Your task to perform on an android device: set an alarm Image 0: 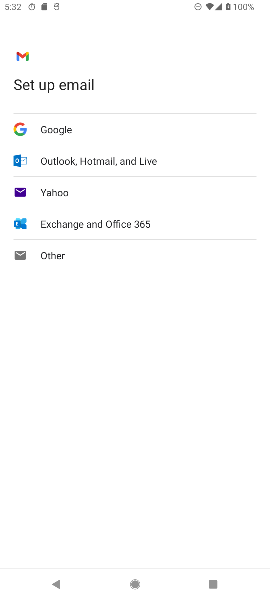
Step 0: press back button
Your task to perform on an android device: set an alarm Image 1: 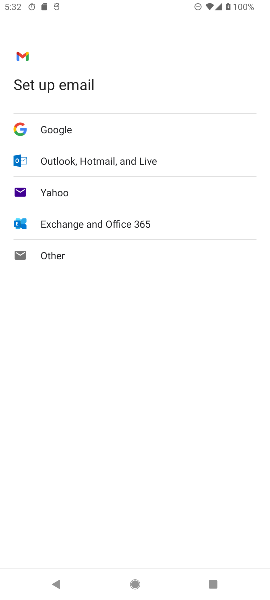
Step 1: press back button
Your task to perform on an android device: set an alarm Image 2: 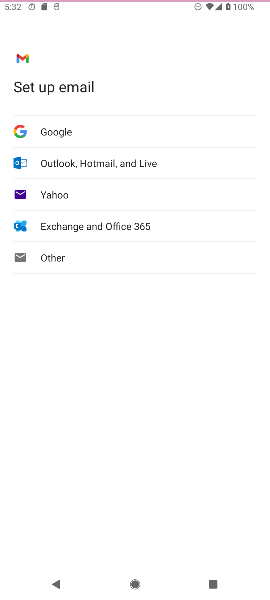
Step 2: press back button
Your task to perform on an android device: set an alarm Image 3: 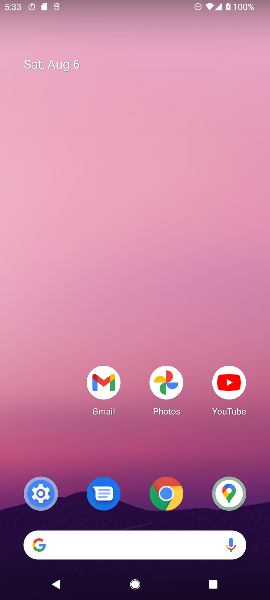
Step 3: drag from (150, 453) to (121, 175)
Your task to perform on an android device: set an alarm Image 4: 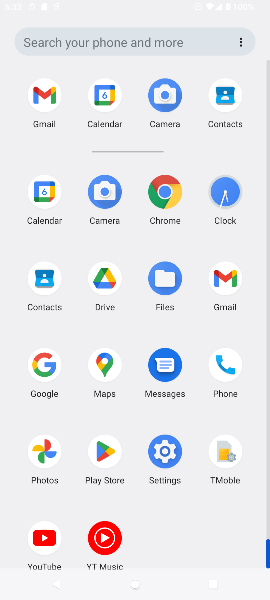
Step 4: drag from (185, 251) to (201, 186)
Your task to perform on an android device: set an alarm Image 5: 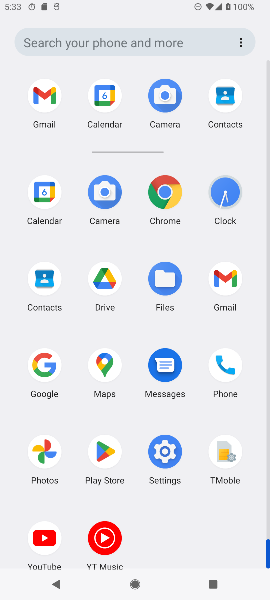
Step 5: click (223, 192)
Your task to perform on an android device: set an alarm Image 6: 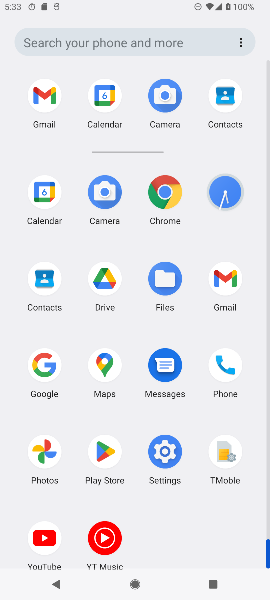
Step 6: click (223, 192)
Your task to perform on an android device: set an alarm Image 7: 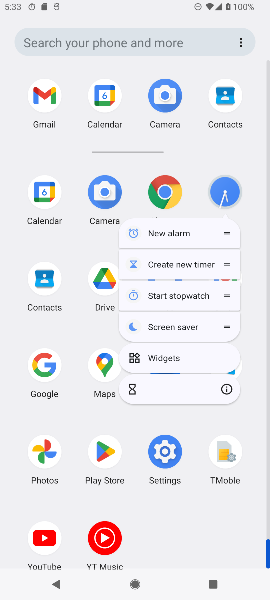
Step 7: click (224, 191)
Your task to perform on an android device: set an alarm Image 8: 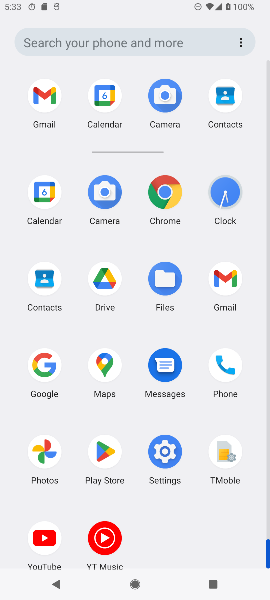
Step 8: click (224, 191)
Your task to perform on an android device: set an alarm Image 9: 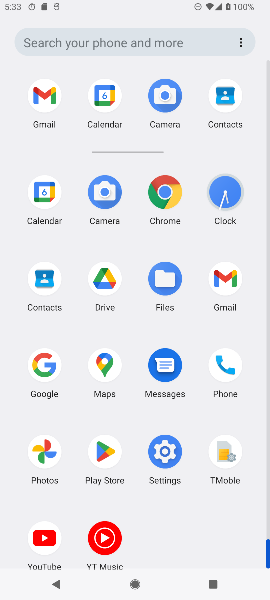
Step 9: click (224, 191)
Your task to perform on an android device: set an alarm Image 10: 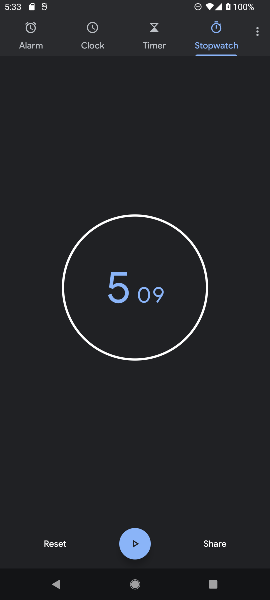
Step 10: click (26, 47)
Your task to perform on an android device: set an alarm Image 11: 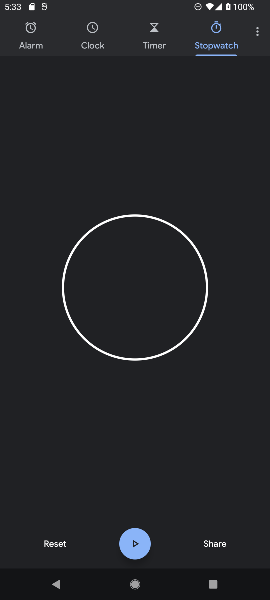
Step 11: click (26, 47)
Your task to perform on an android device: set an alarm Image 12: 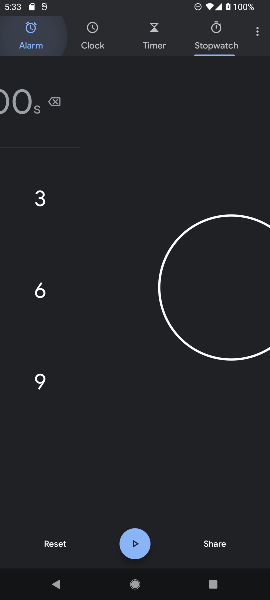
Step 12: click (26, 47)
Your task to perform on an android device: set an alarm Image 13: 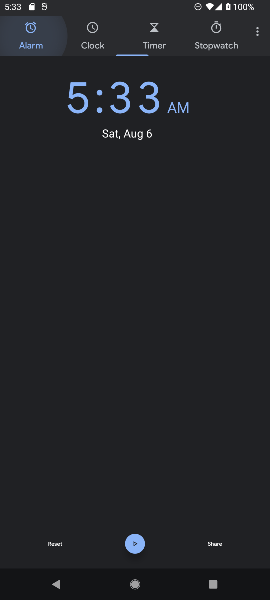
Step 13: click (26, 47)
Your task to perform on an android device: set an alarm Image 14: 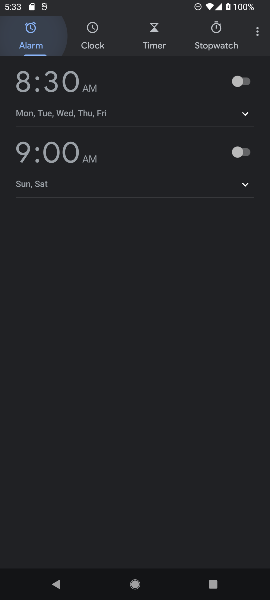
Step 14: click (26, 47)
Your task to perform on an android device: set an alarm Image 15: 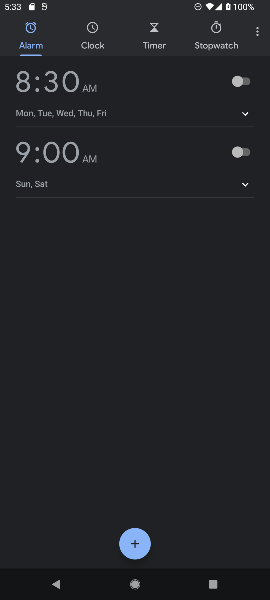
Step 15: click (241, 80)
Your task to perform on an android device: set an alarm Image 16: 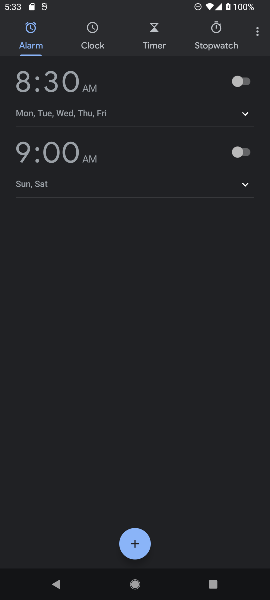
Step 16: click (241, 80)
Your task to perform on an android device: set an alarm Image 17: 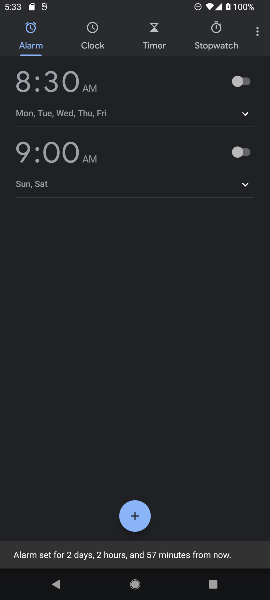
Step 17: click (240, 87)
Your task to perform on an android device: set an alarm Image 18: 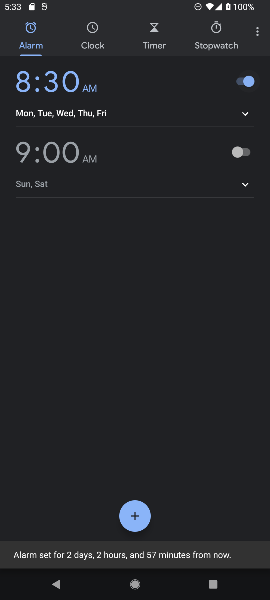
Step 18: task complete